Your task to perform on an android device: turn on wifi Image 0: 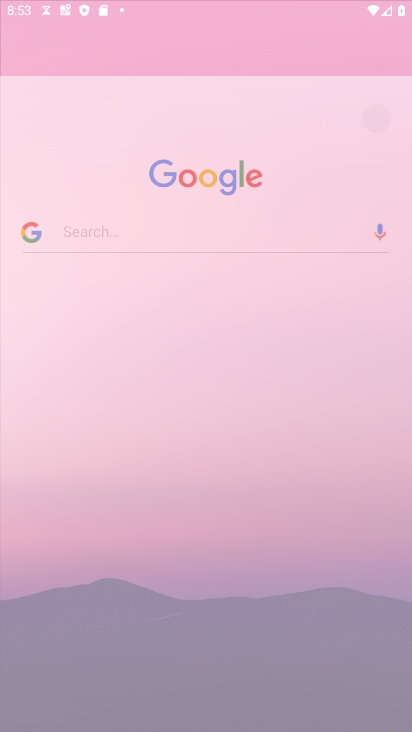
Step 0: press home button
Your task to perform on an android device: turn on wifi Image 1: 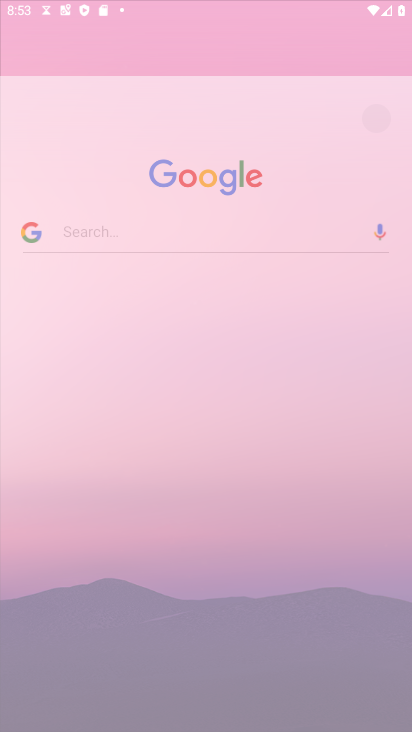
Step 1: click (260, 59)
Your task to perform on an android device: turn on wifi Image 2: 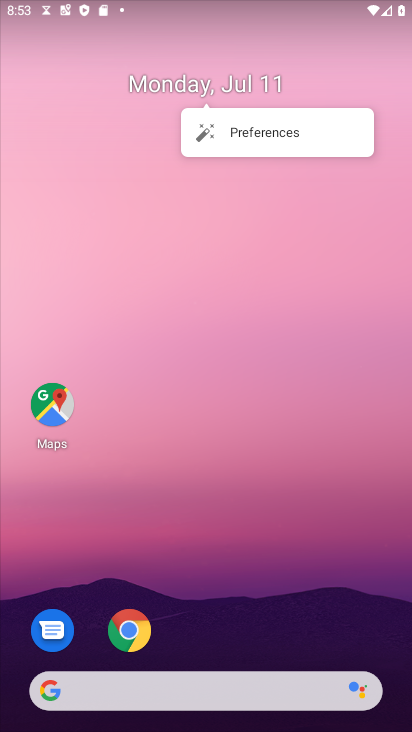
Step 2: press home button
Your task to perform on an android device: turn on wifi Image 3: 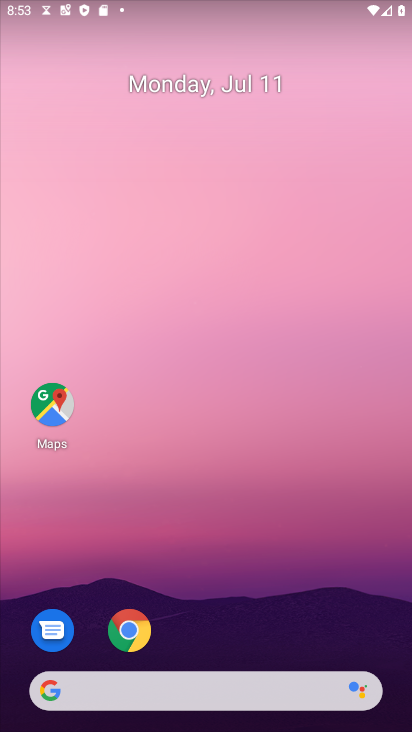
Step 3: drag from (228, 646) to (262, 64)
Your task to perform on an android device: turn on wifi Image 4: 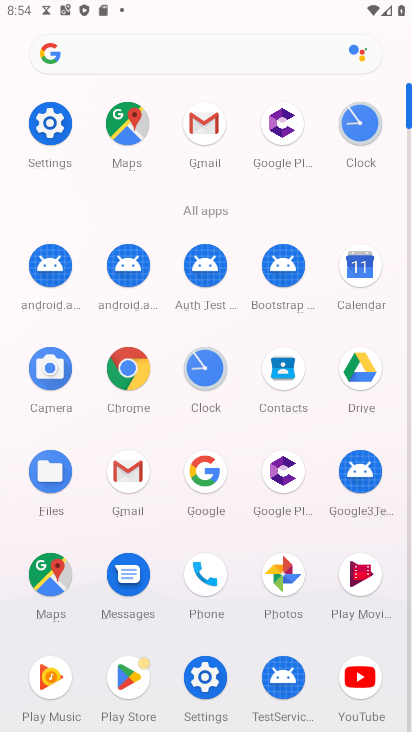
Step 4: click (45, 123)
Your task to perform on an android device: turn on wifi Image 5: 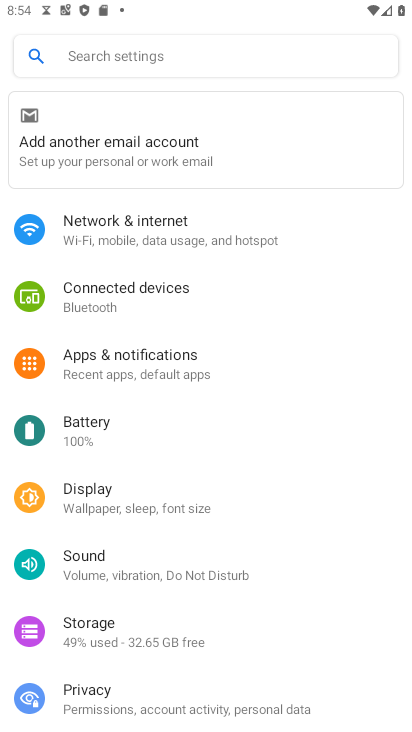
Step 5: click (98, 221)
Your task to perform on an android device: turn on wifi Image 6: 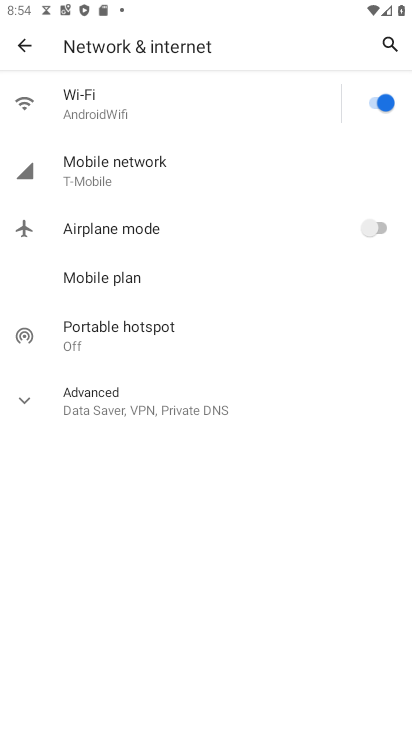
Step 6: task complete